Your task to perform on an android device: turn on wifi Image 0: 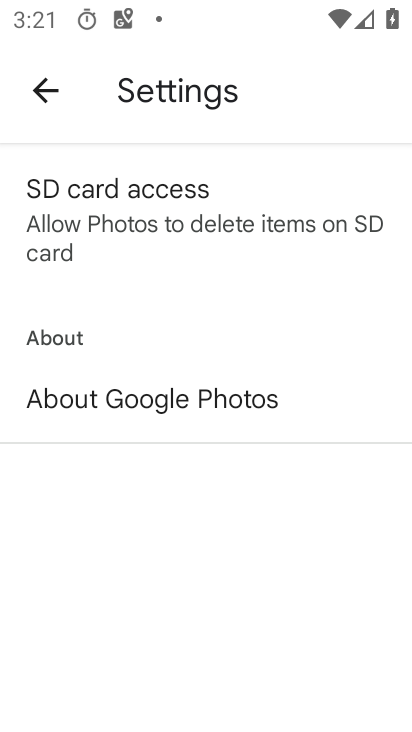
Step 0: press home button
Your task to perform on an android device: turn on wifi Image 1: 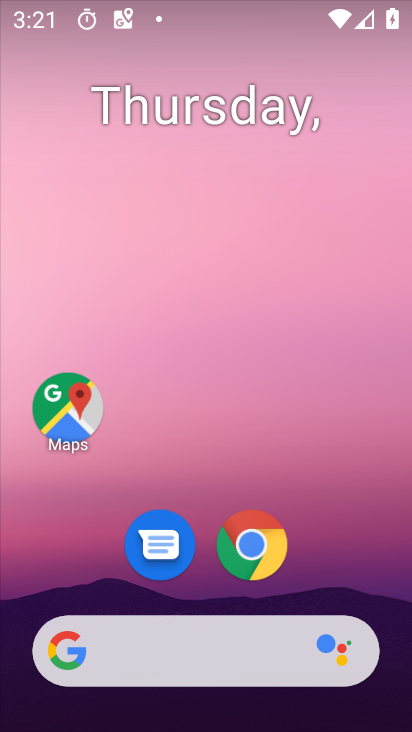
Step 1: drag from (229, 726) to (234, 114)
Your task to perform on an android device: turn on wifi Image 2: 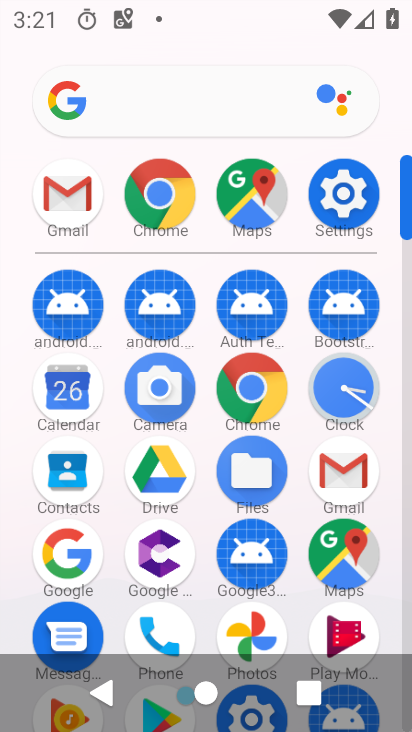
Step 2: click (337, 197)
Your task to perform on an android device: turn on wifi Image 3: 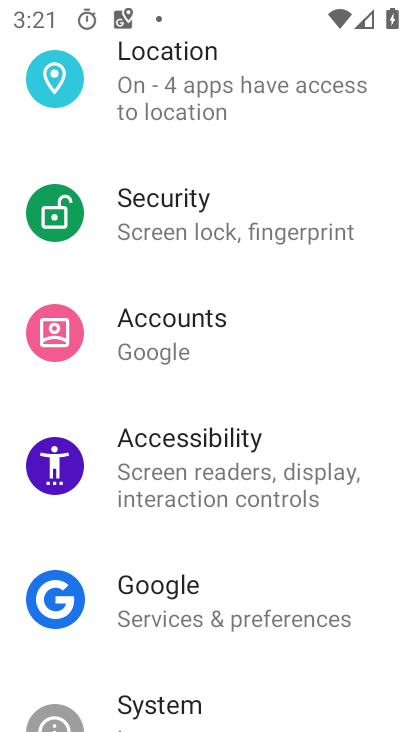
Step 3: drag from (259, 148) to (252, 624)
Your task to perform on an android device: turn on wifi Image 4: 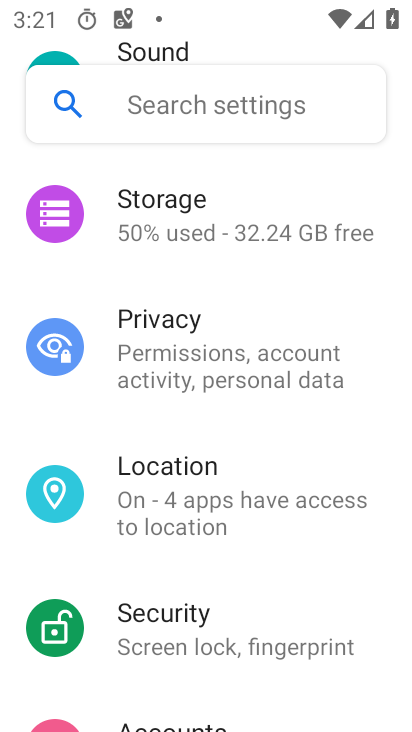
Step 4: drag from (226, 170) to (241, 585)
Your task to perform on an android device: turn on wifi Image 5: 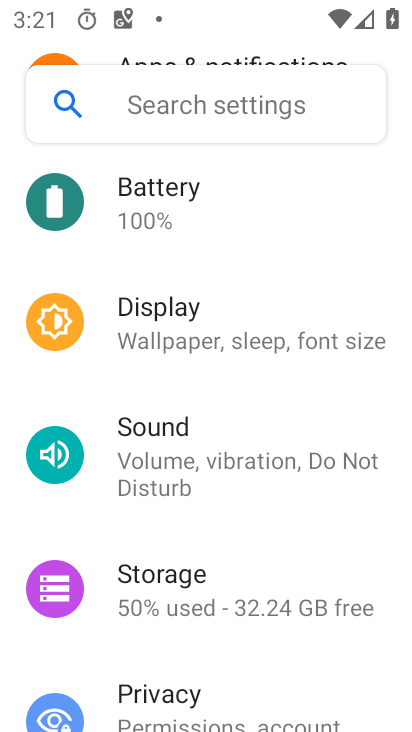
Step 5: drag from (211, 181) to (223, 598)
Your task to perform on an android device: turn on wifi Image 6: 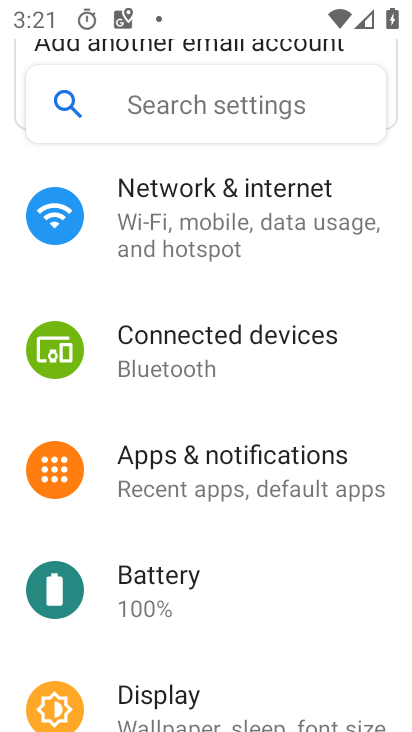
Step 6: drag from (202, 175) to (245, 613)
Your task to perform on an android device: turn on wifi Image 7: 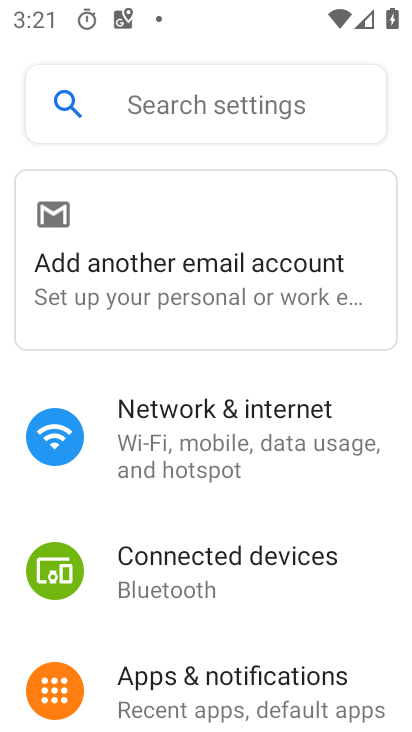
Step 7: click (208, 430)
Your task to perform on an android device: turn on wifi Image 8: 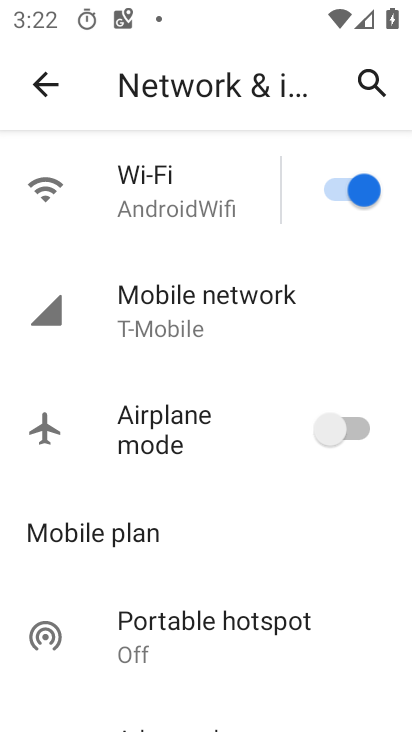
Step 8: task complete